Your task to perform on an android device: Search for hotels in London Image 0: 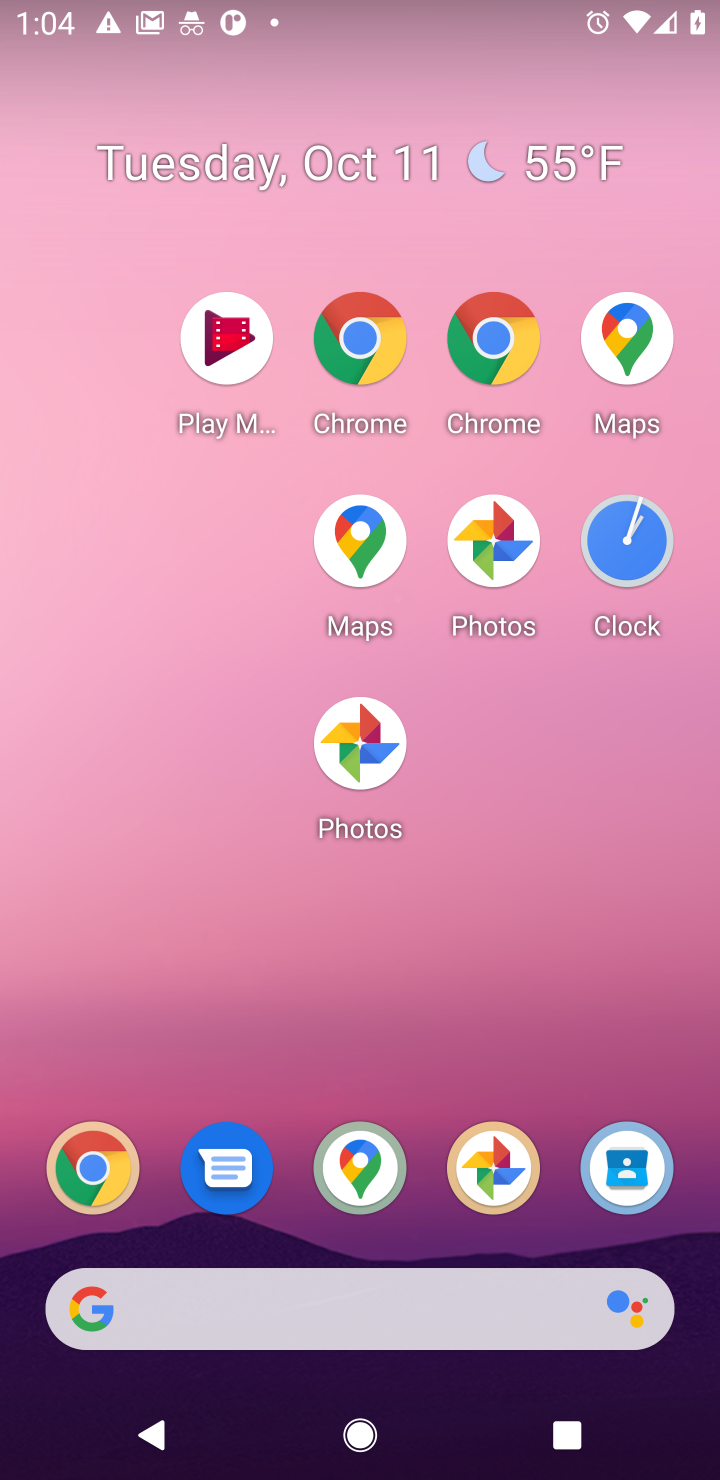
Step 0: drag from (583, 965) to (646, 33)
Your task to perform on an android device: Search for hotels in London Image 1: 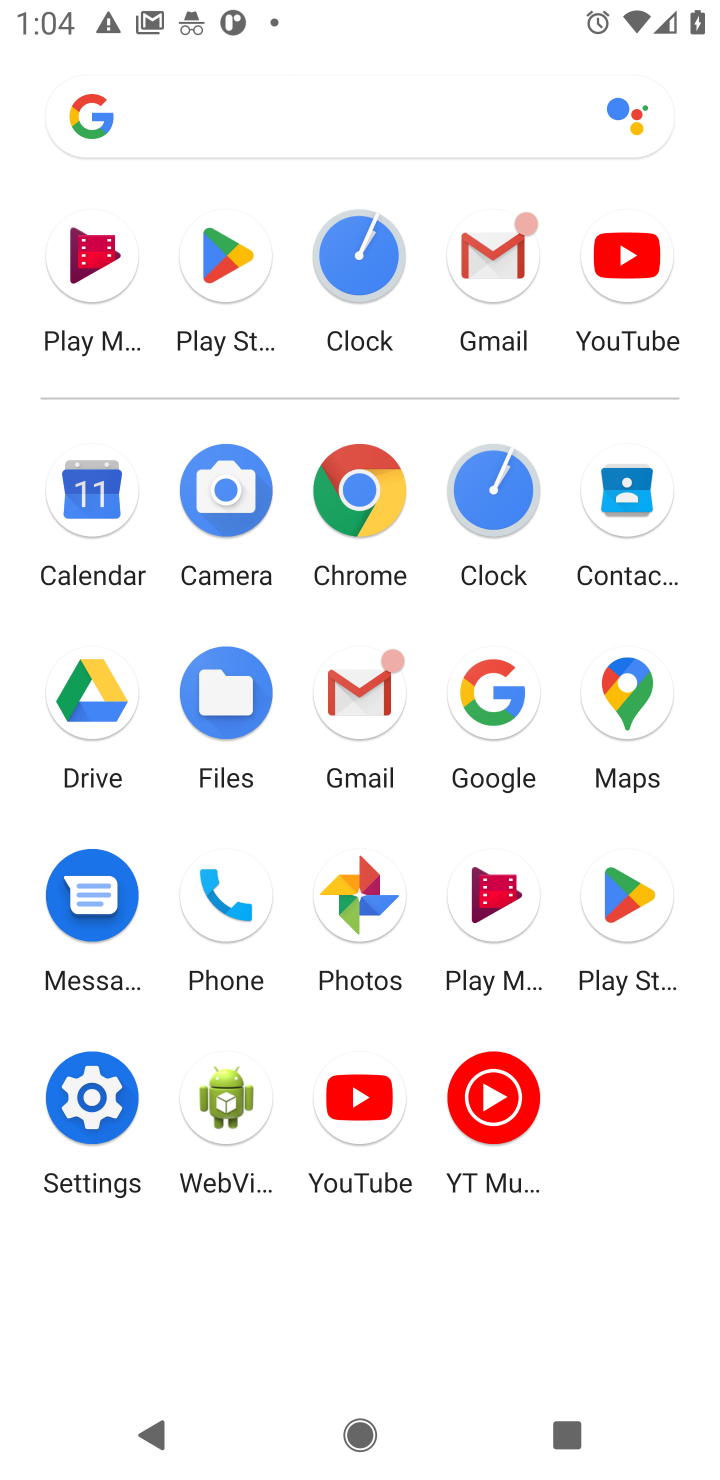
Step 1: click (479, 695)
Your task to perform on an android device: Search for hotels in London Image 2: 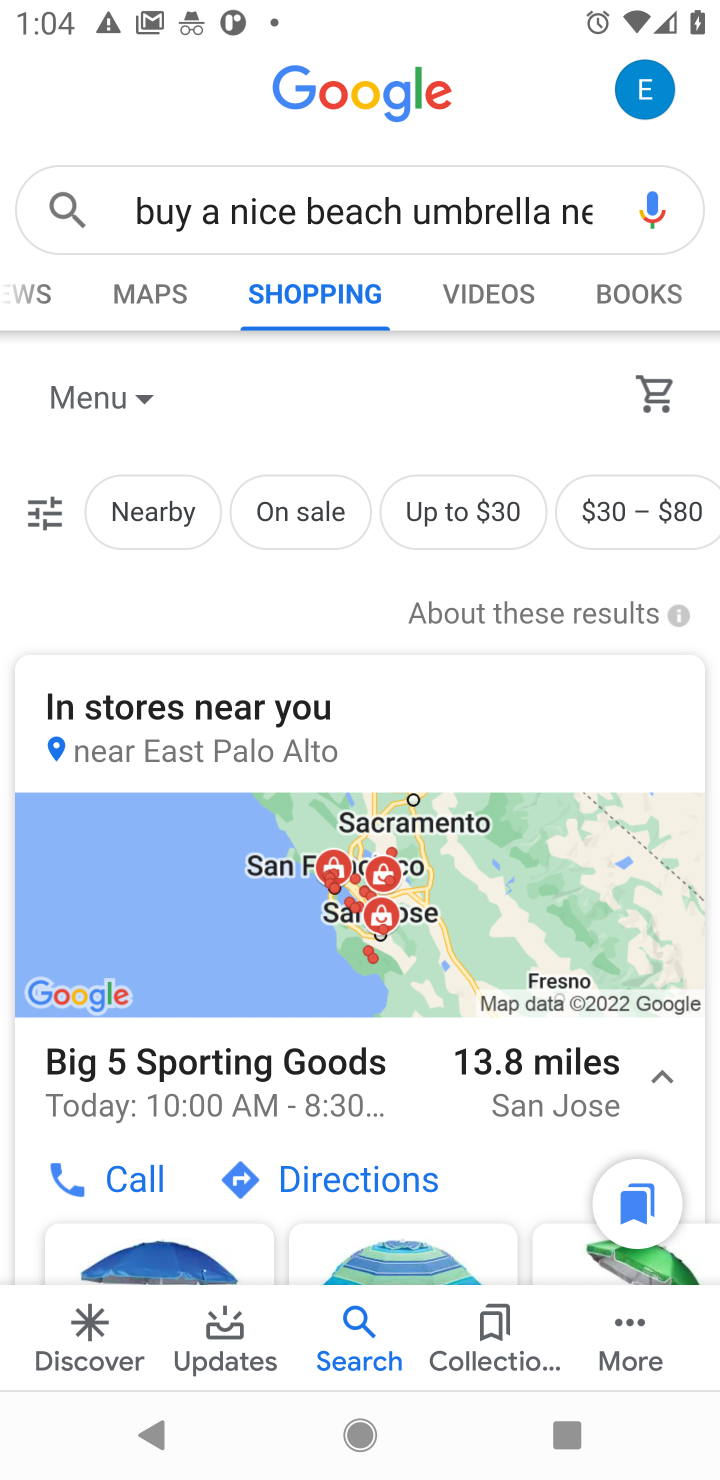
Step 2: click (494, 193)
Your task to perform on an android device: Search for hotels in London Image 3: 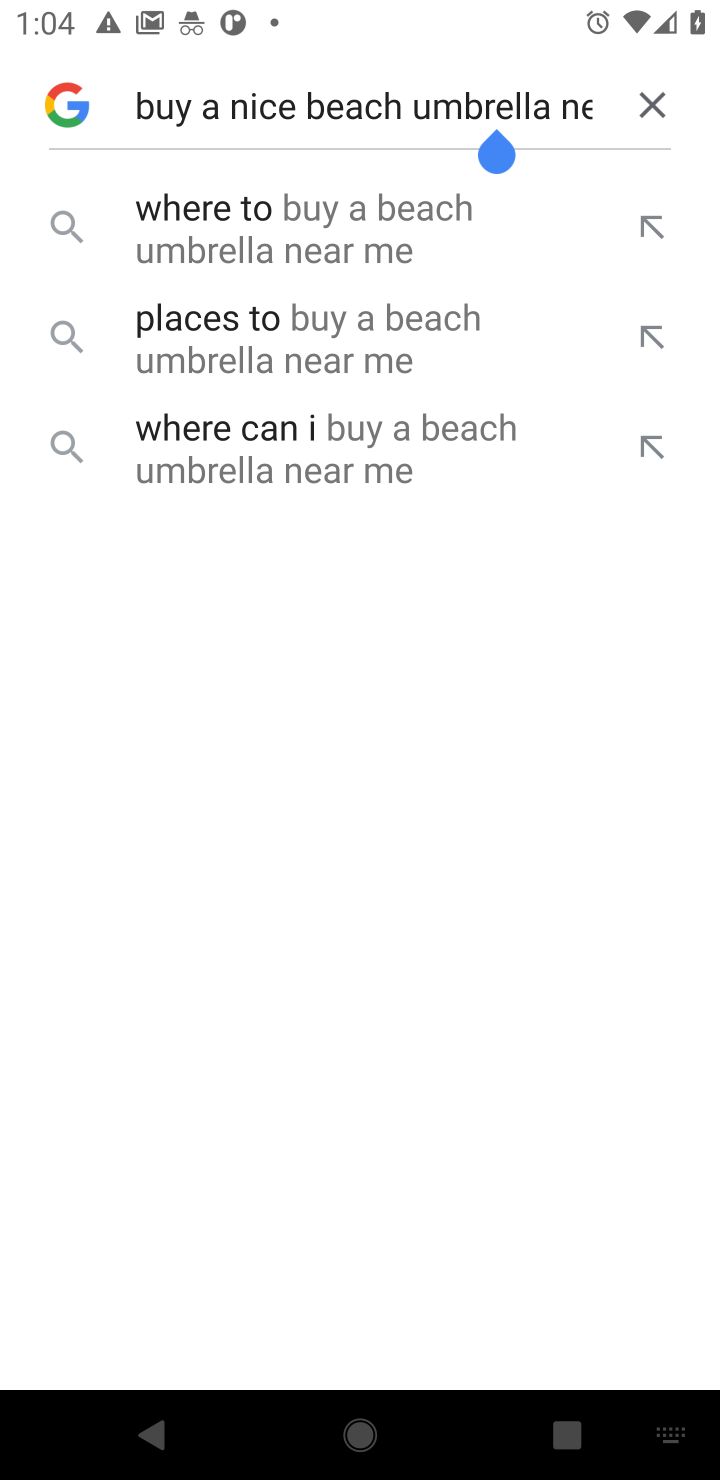
Step 3: click (652, 112)
Your task to perform on an android device: Search for hotels in London Image 4: 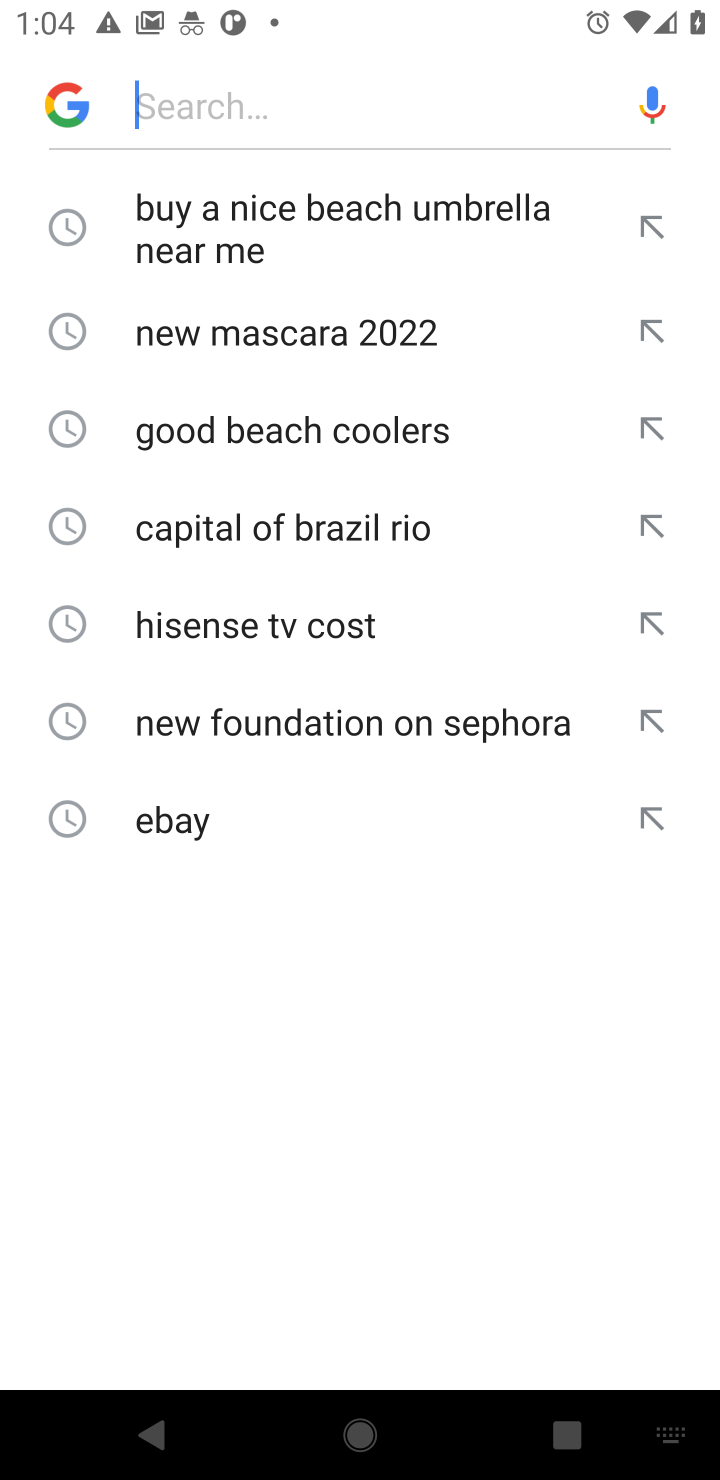
Step 4: type "hotels in London"
Your task to perform on an android device: Search for hotels in London Image 5: 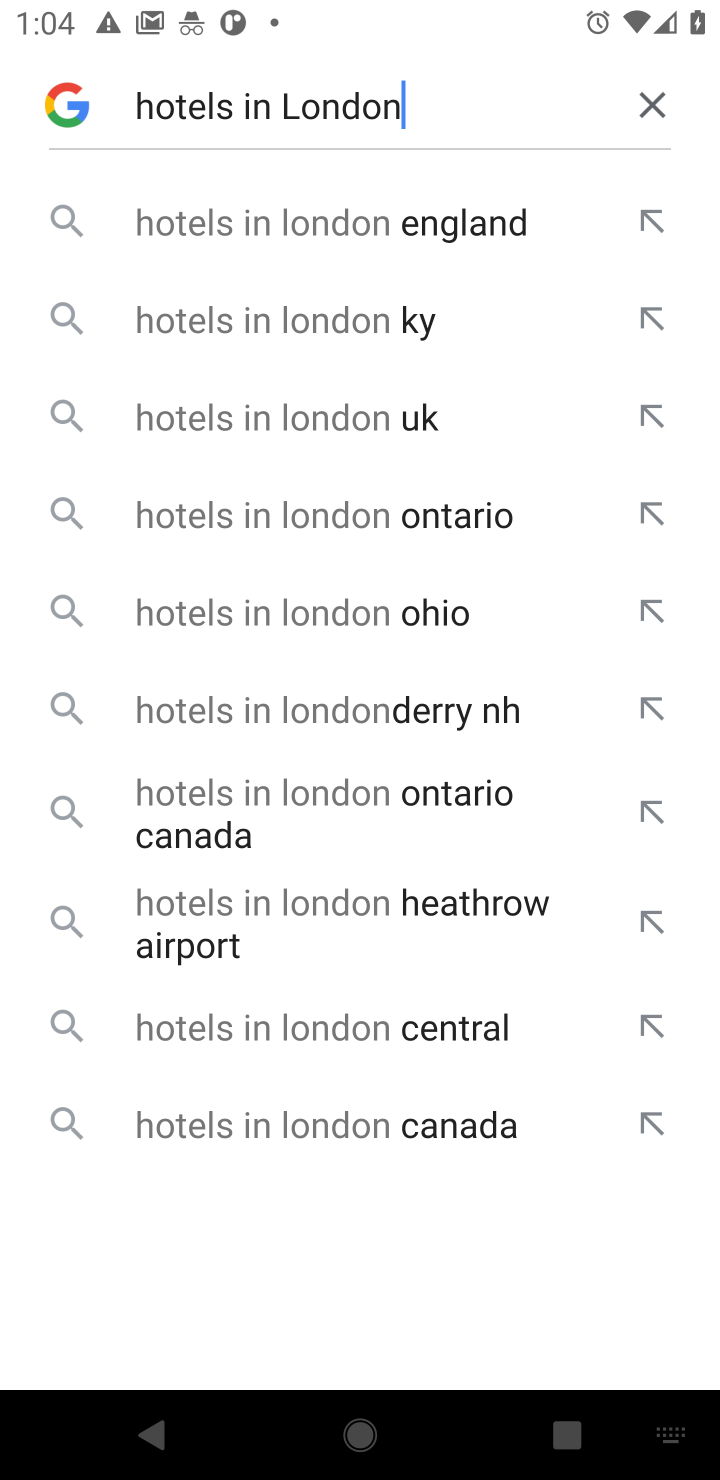
Step 5: click (401, 420)
Your task to perform on an android device: Search for hotels in London Image 6: 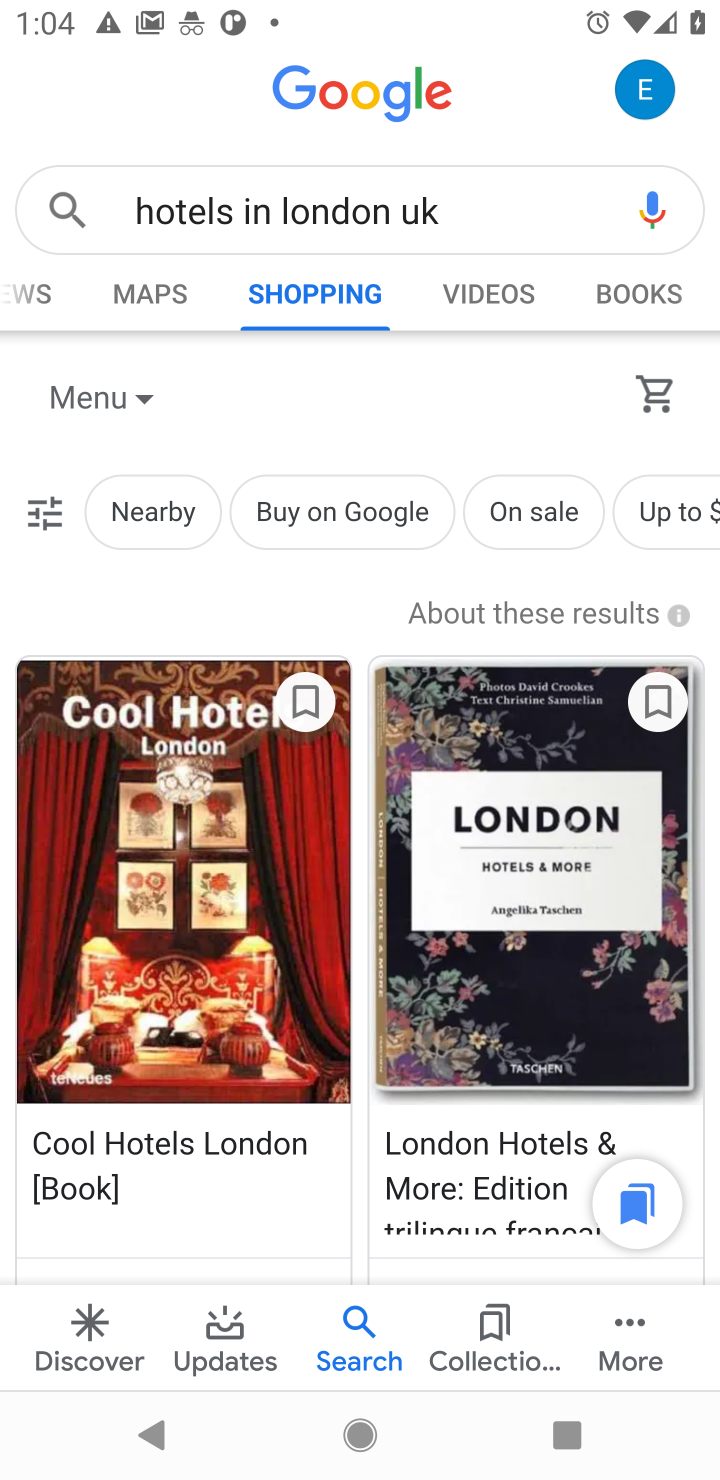
Step 6: drag from (262, 293) to (490, 293)
Your task to perform on an android device: Search for hotels in London Image 7: 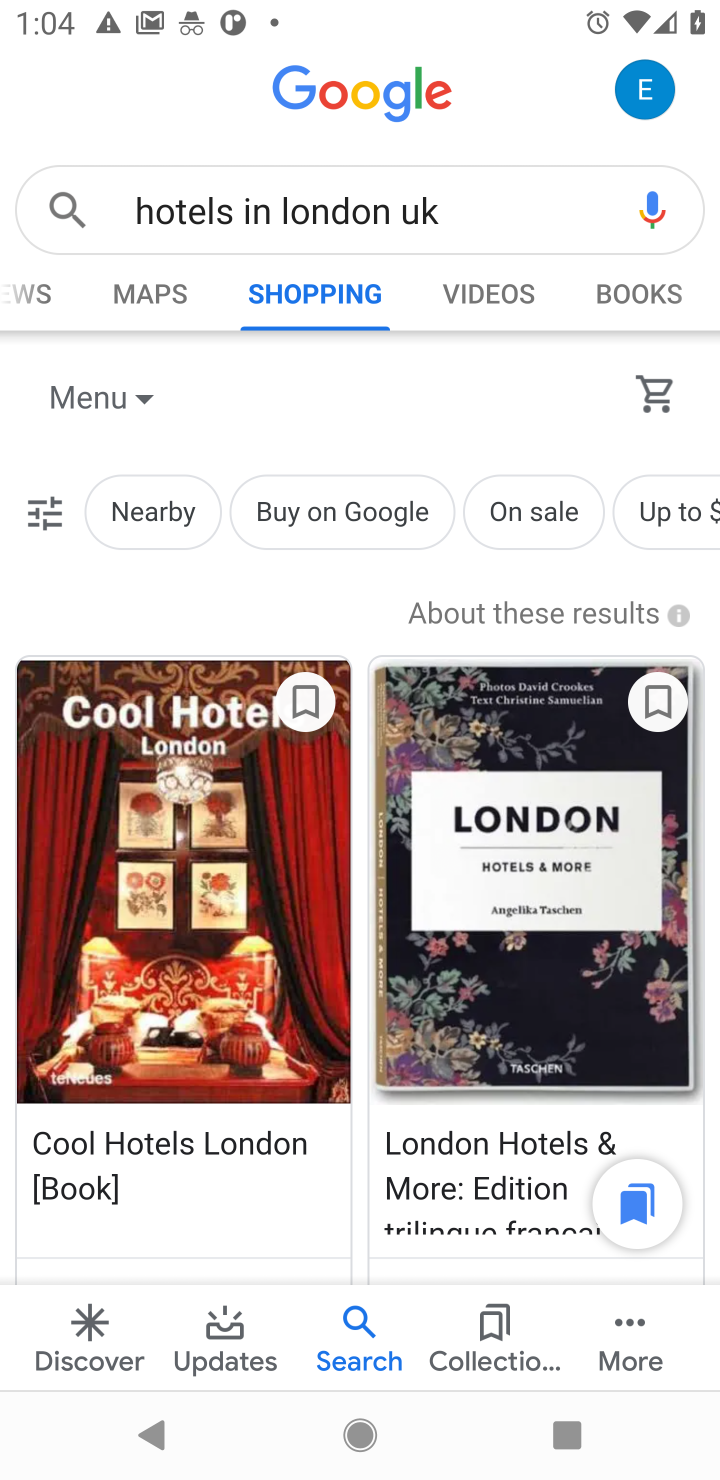
Step 7: drag from (168, 306) to (495, 321)
Your task to perform on an android device: Search for hotels in London Image 8: 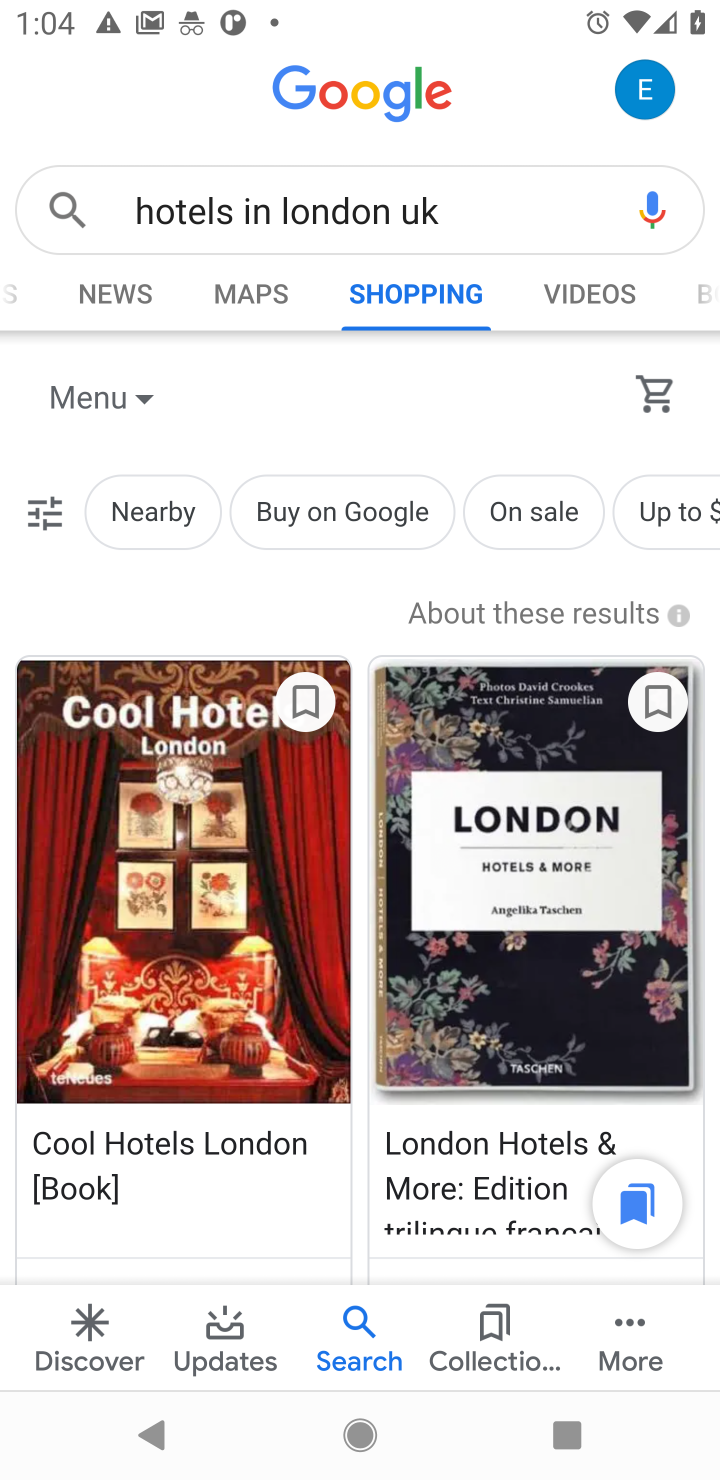
Step 8: drag from (209, 289) to (634, 232)
Your task to perform on an android device: Search for hotels in London Image 9: 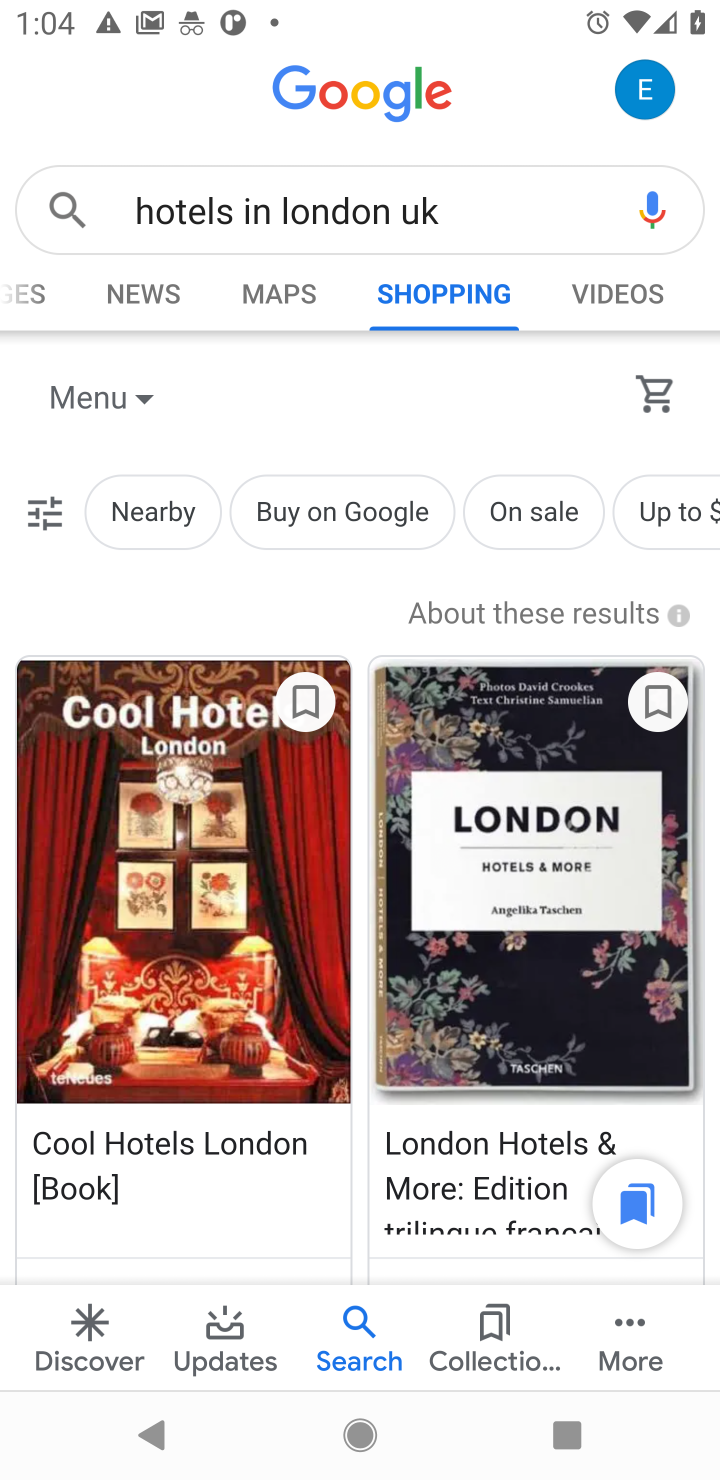
Step 9: drag from (87, 294) to (395, 298)
Your task to perform on an android device: Search for hotels in London Image 10: 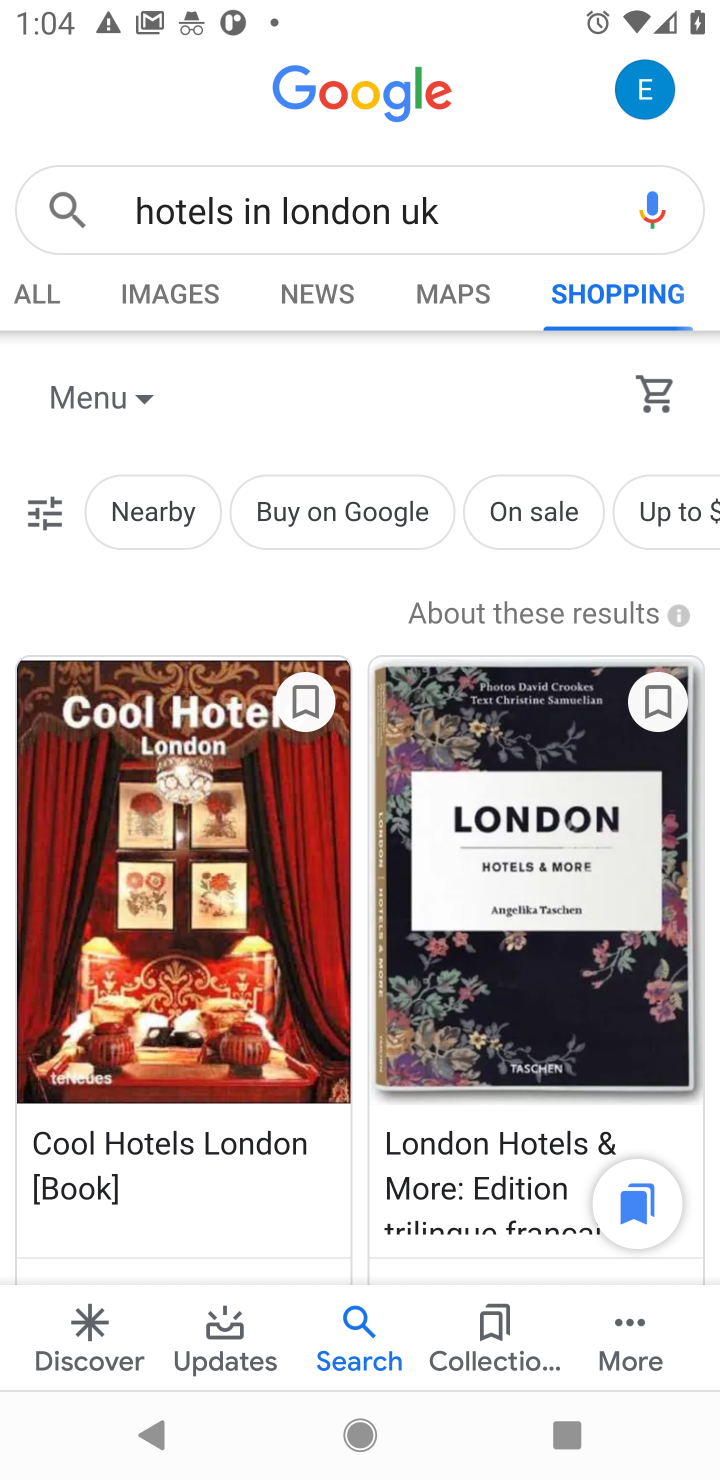
Step 10: click (34, 306)
Your task to perform on an android device: Search for hotels in London Image 11: 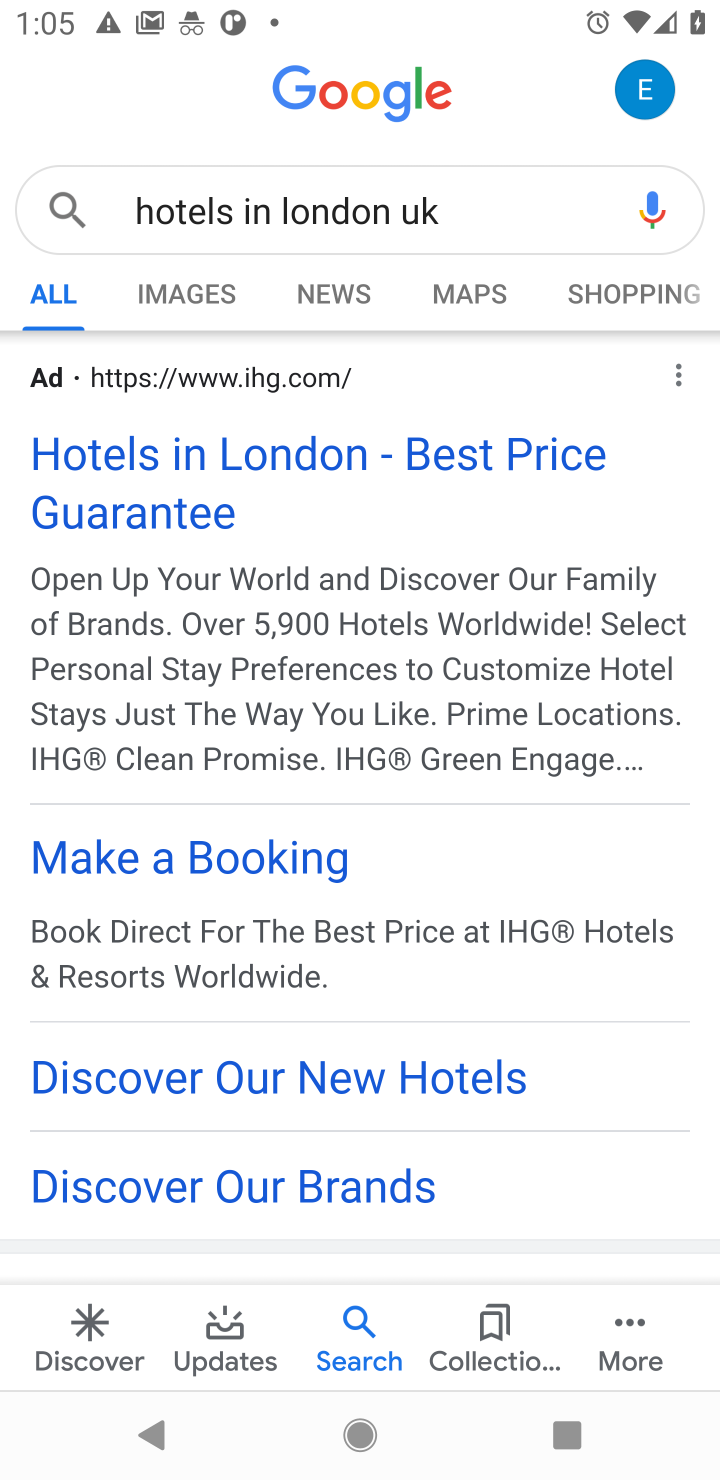
Step 11: task complete